Your task to perform on an android device: Check the news Image 0: 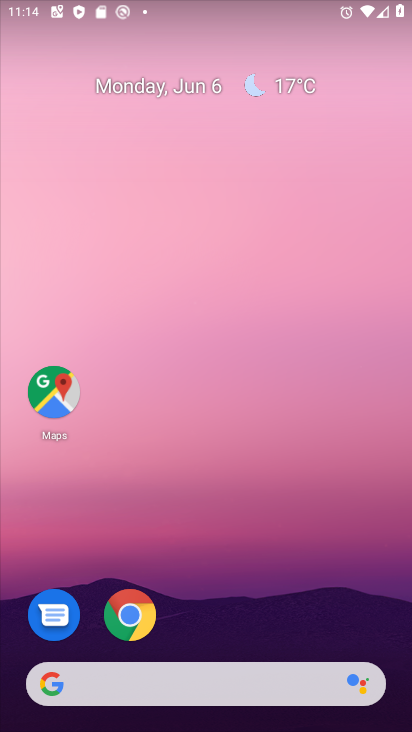
Step 0: drag from (21, 452) to (404, 169)
Your task to perform on an android device: Check the news Image 1: 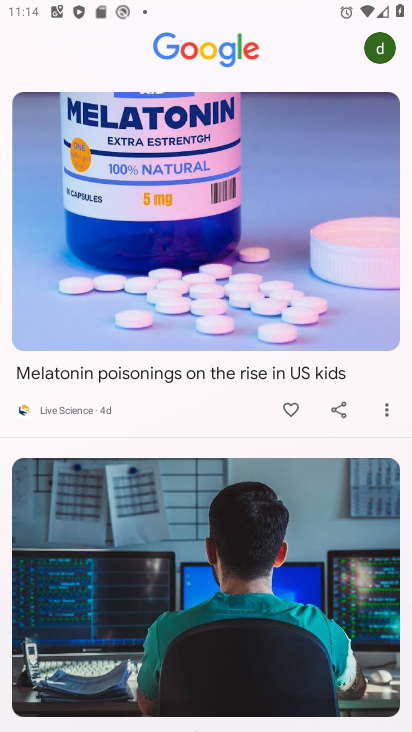
Step 1: task complete